Your task to perform on an android device: Go to Google maps Image 0: 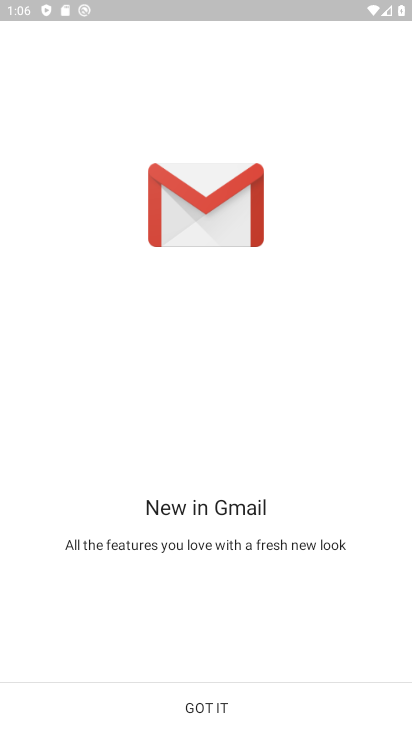
Step 0: press home button
Your task to perform on an android device: Go to Google maps Image 1: 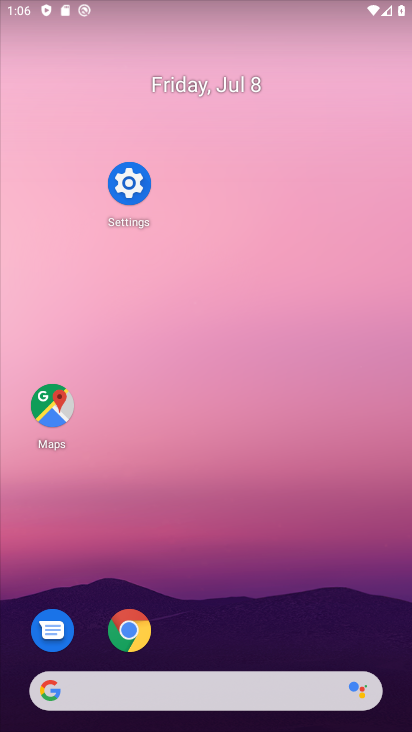
Step 1: click (62, 401)
Your task to perform on an android device: Go to Google maps Image 2: 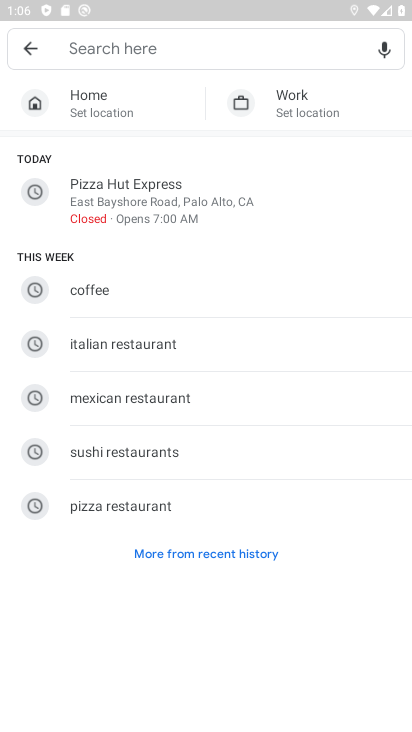
Step 2: task complete